Your task to perform on an android device: check battery use Image 0: 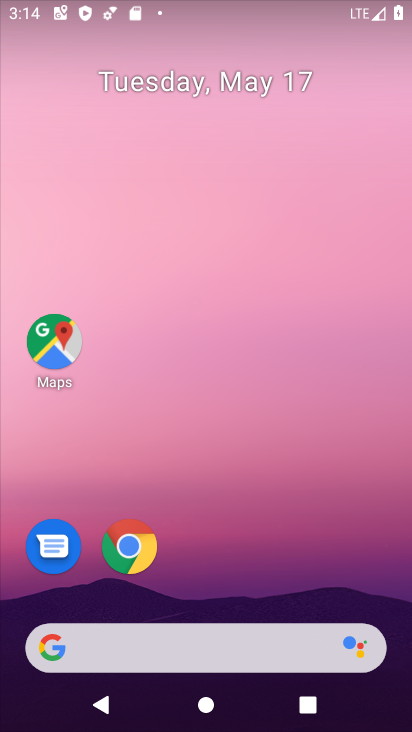
Step 0: press home button
Your task to perform on an android device: check battery use Image 1: 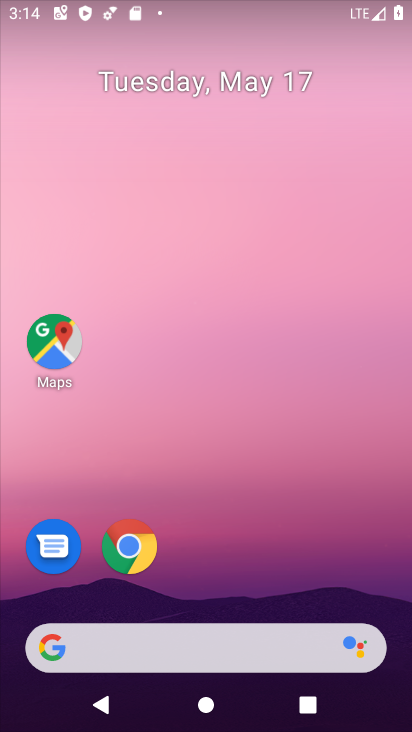
Step 1: drag from (277, 465) to (279, 28)
Your task to perform on an android device: check battery use Image 2: 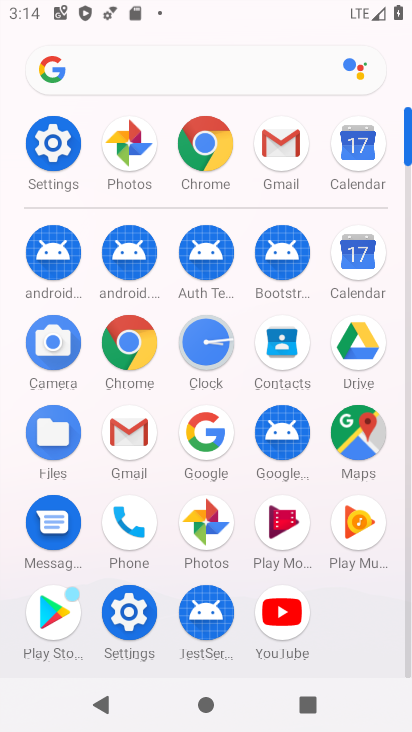
Step 2: click (102, 625)
Your task to perform on an android device: check battery use Image 3: 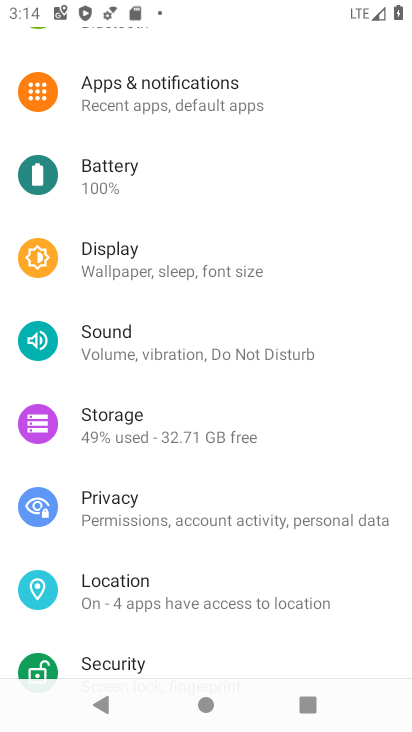
Step 3: click (171, 189)
Your task to perform on an android device: check battery use Image 4: 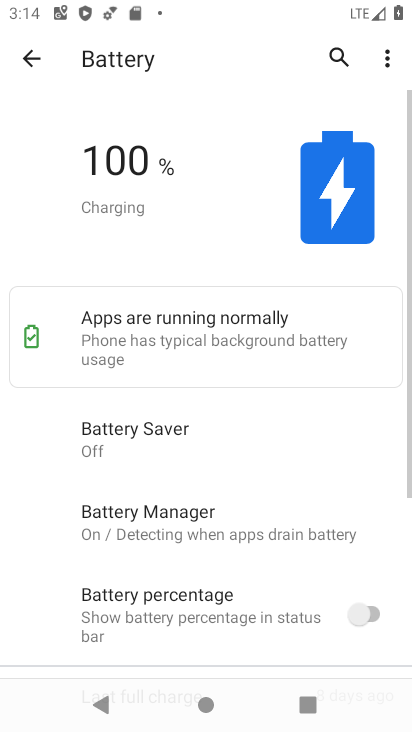
Step 4: task complete